Your task to perform on an android device: Open calendar and show me the fourth week of next month Image 0: 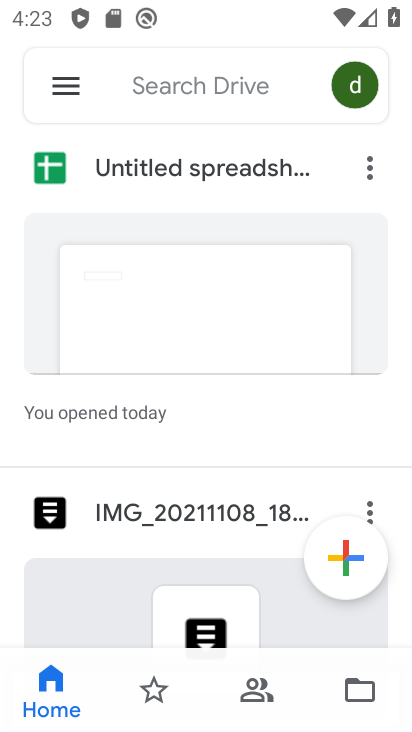
Step 0: press home button
Your task to perform on an android device: Open calendar and show me the fourth week of next month Image 1: 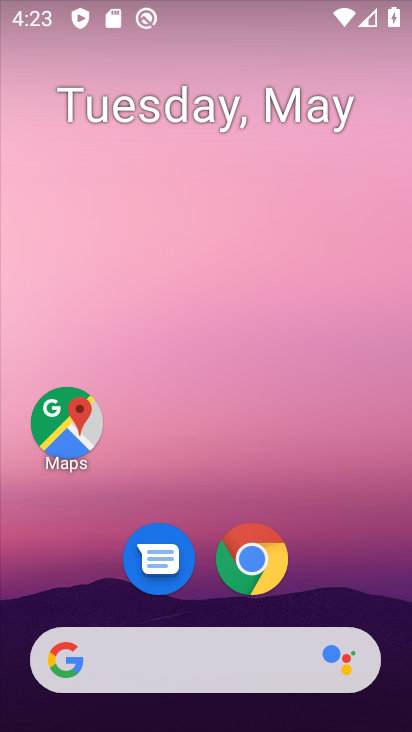
Step 1: drag from (323, 603) to (284, 7)
Your task to perform on an android device: Open calendar and show me the fourth week of next month Image 2: 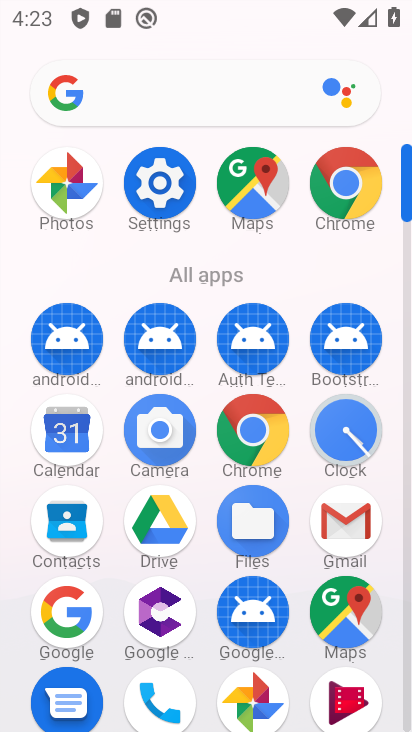
Step 2: click (83, 411)
Your task to perform on an android device: Open calendar and show me the fourth week of next month Image 3: 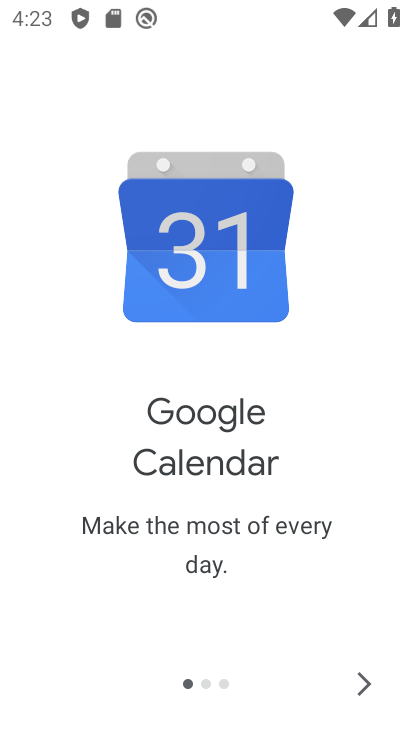
Step 3: click (370, 687)
Your task to perform on an android device: Open calendar and show me the fourth week of next month Image 4: 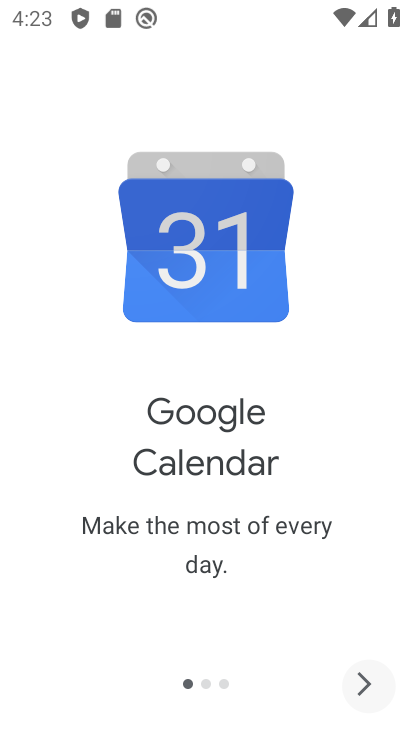
Step 4: click (370, 687)
Your task to perform on an android device: Open calendar and show me the fourth week of next month Image 5: 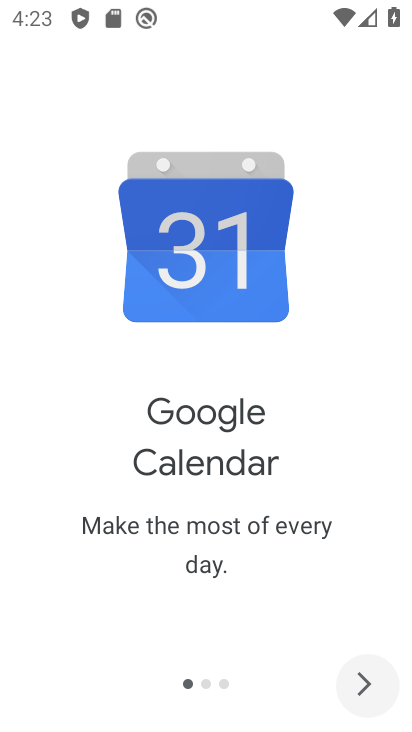
Step 5: click (370, 687)
Your task to perform on an android device: Open calendar and show me the fourth week of next month Image 6: 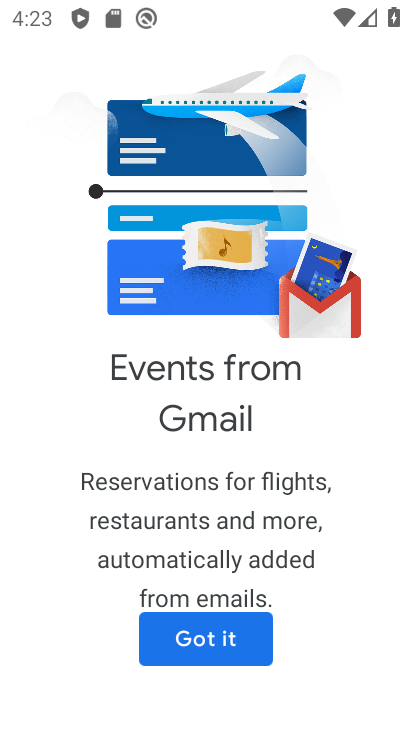
Step 6: click (167, 649)
Your task to perform on an android device: Open calendar and show me the fourth week of next month Image 7: 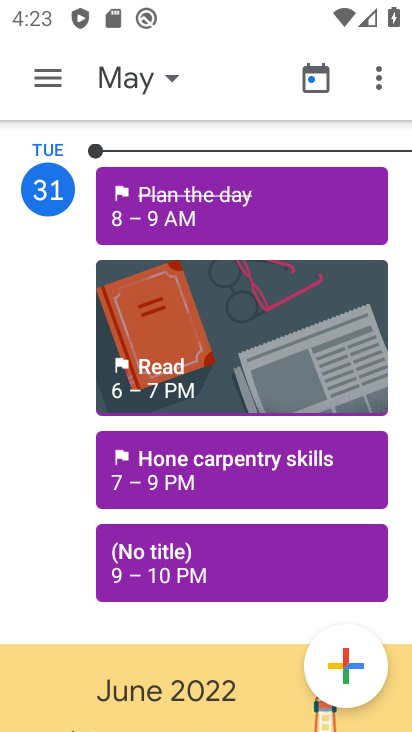
Step 7: click (116, 64)
Your task to perform on an android device: Open calendar and show me the fourth week of next month Image 8: 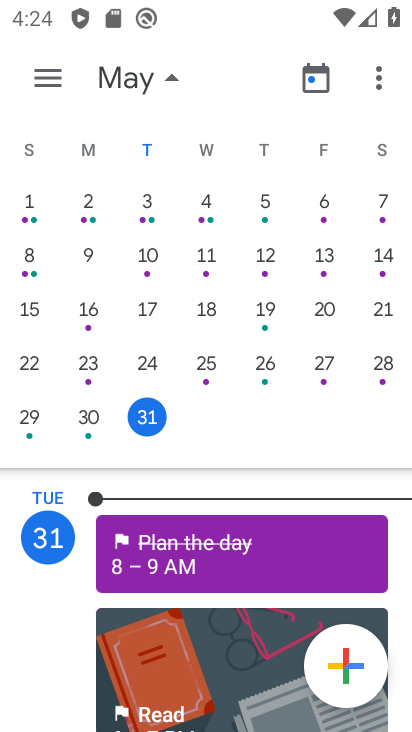
Step 8: drag from (382, 287) to (1, 276)
Your task to perform on an android device: Open calendar and show me the fourth week of next month Image 9: 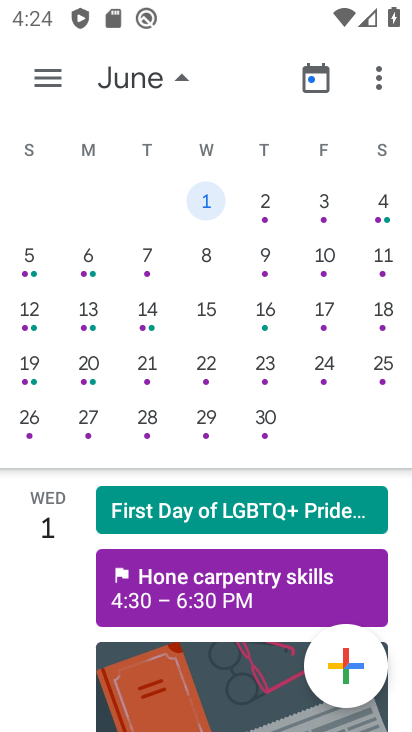
Step 9: click (141, 366)
Your task to perform on an android device: Open calendar and show me the fourth week of next month Image 10: 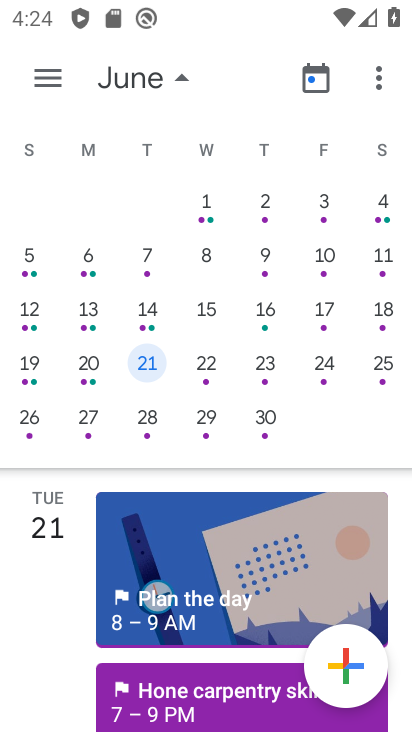
Step 10: task complete